Your task to perform on an android device: Find coffee shops on Maps Image 0: 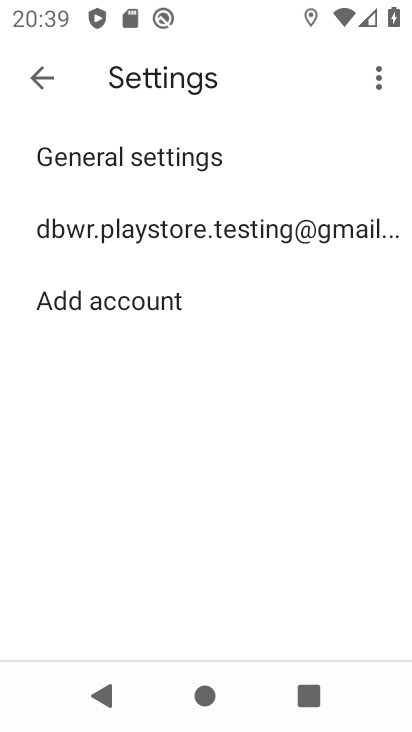
Step 0: press home button
Your task to perform on an android device: Find coffee shops on Maps Image 1: 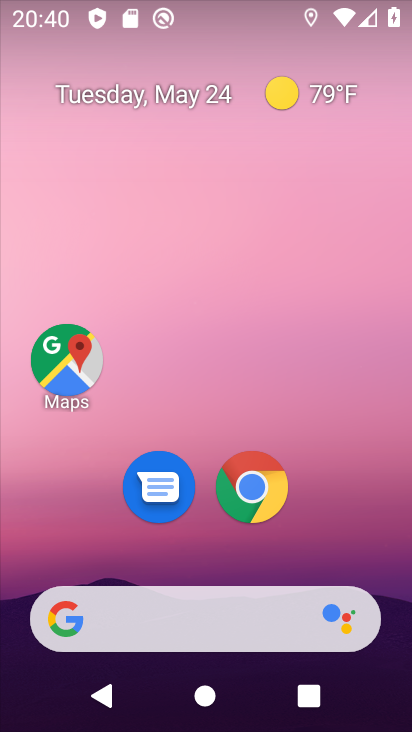
Step 1: click (60, 363)
Your task to perform on an android device: Find coffee shops on Maps Image 2: 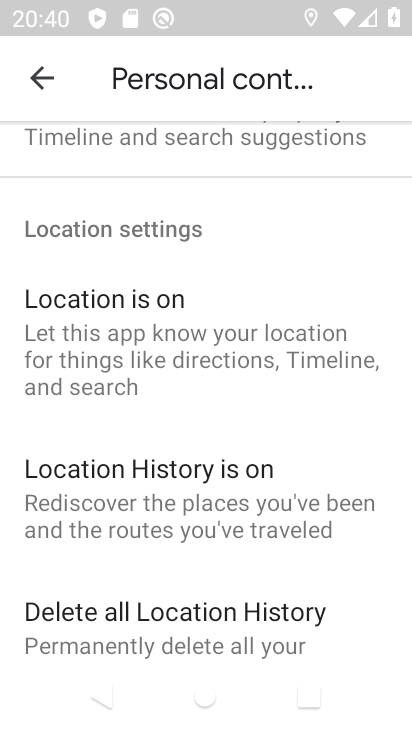
Step 2: press back button
Your task to perform on an android device: Find coffee shops on Maps Image 3: 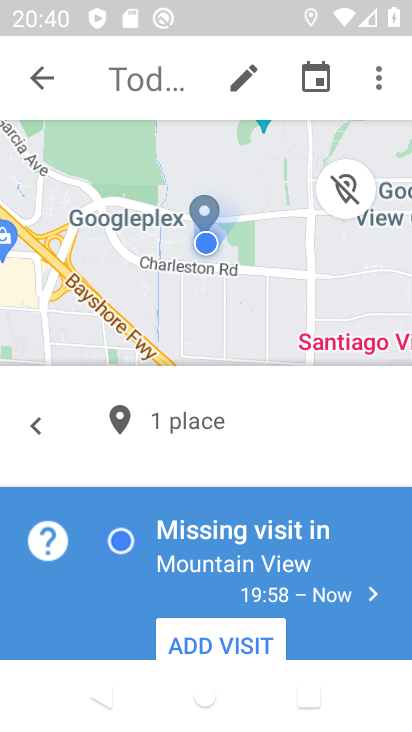
Step 3: click (38, 77)
Your task to perform on an android device: Find coffee shops on Maps Image 4: 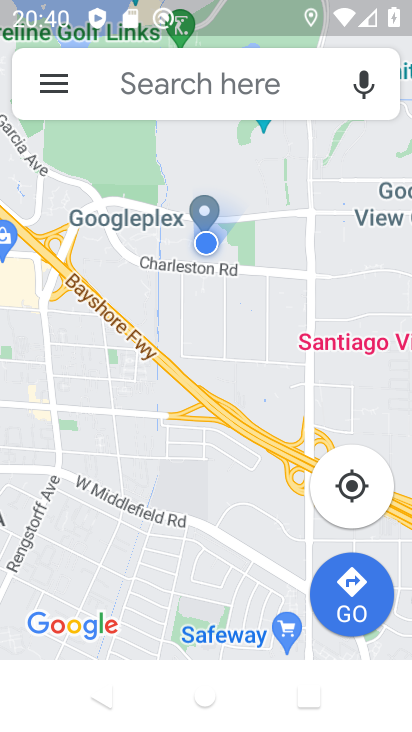
Step 4: click (133, 80)
Your task to perform on an android device: Find coffee shops on Maps Image 5: 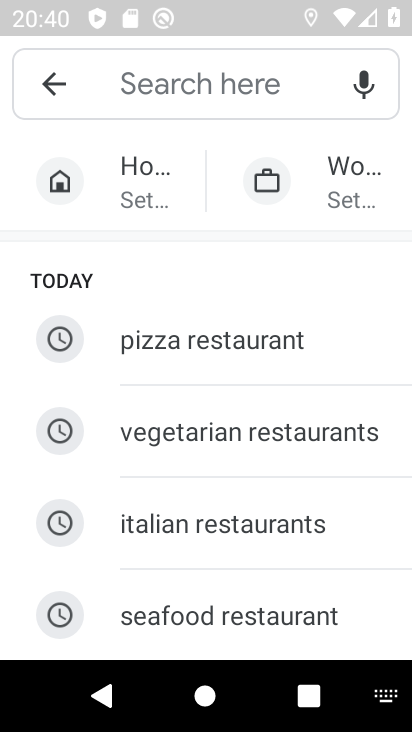
Step 5: type "coffee shops"
Your task to perform on an android device: Find coffee shops on Maps Image 6: 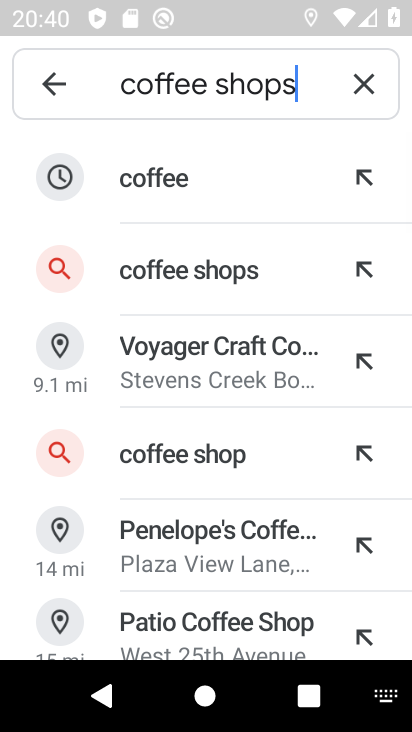
Step 6: click (228, 268)
Your task to perform on an android device: Find coffee shops on Maps Image 7: 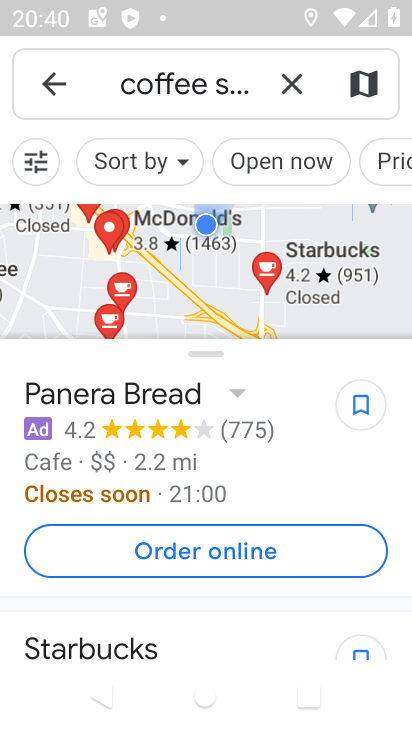
Step 7: task complete